Your task to perform on an android device: Open my contact list Image 0: 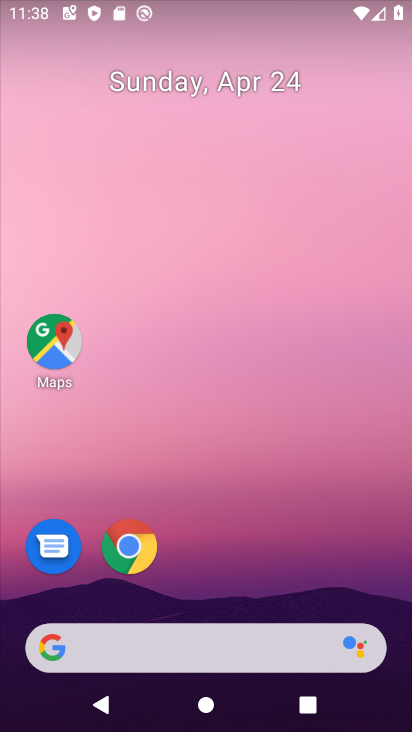
Step 0: drag from (218, 583) to (207, 177)
Your task to perform on an android device: Open my contact list Image 1: 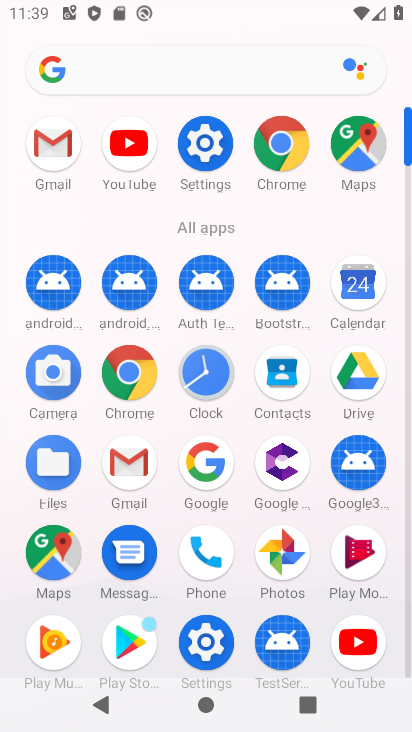
Step 1: click (274, 386)
Your task to perform on an android device: Open my contact list Image 2: 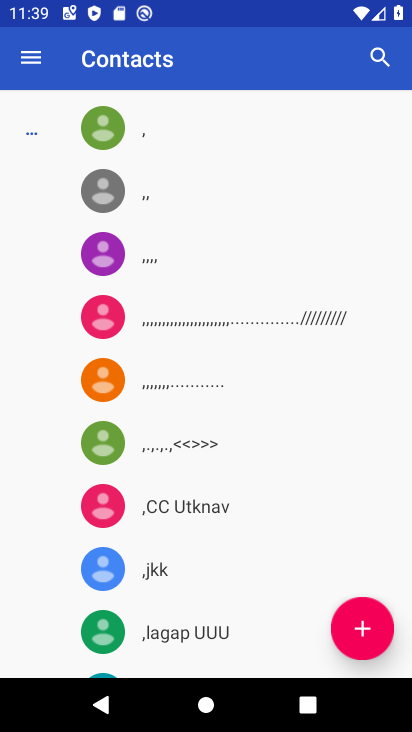
Step 2: task complete